Your task to perform on an android device: Go to Yahoo.com Image 0: 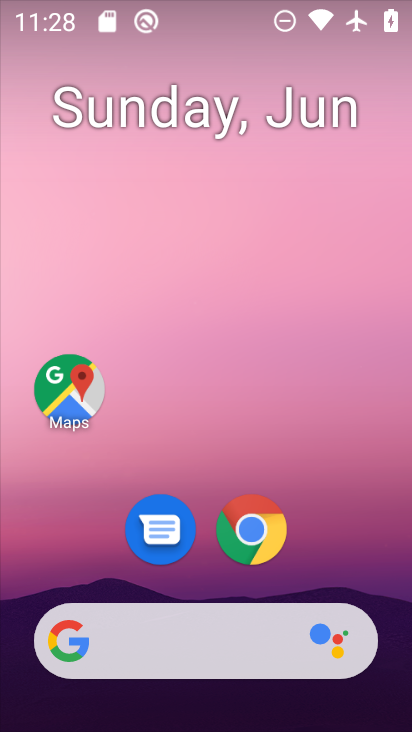
Step 0: click (252, 525)
Your task to perform on an android device: Go to Yahoo.com Image 1: 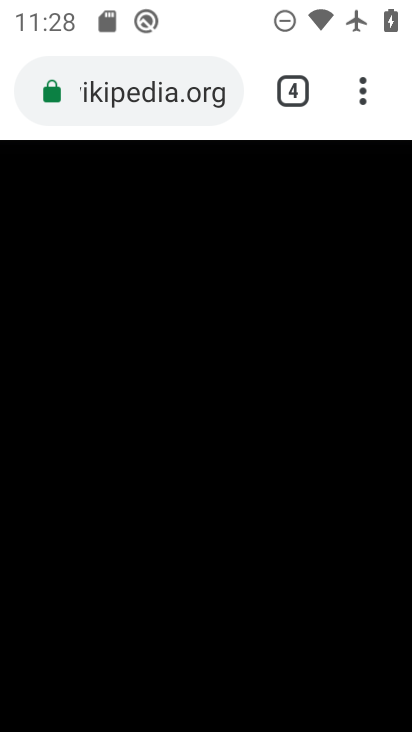
Step 1: click (215, 67)
Your task to perform on an android device: Go to Yahoo.com Image 2: 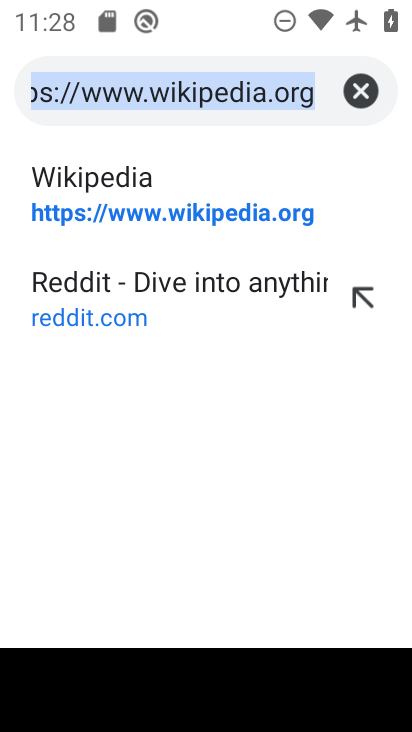
Step 2: click (359, 92)
Your task to perform on an android device: Go to Yahoo.com Image 3: 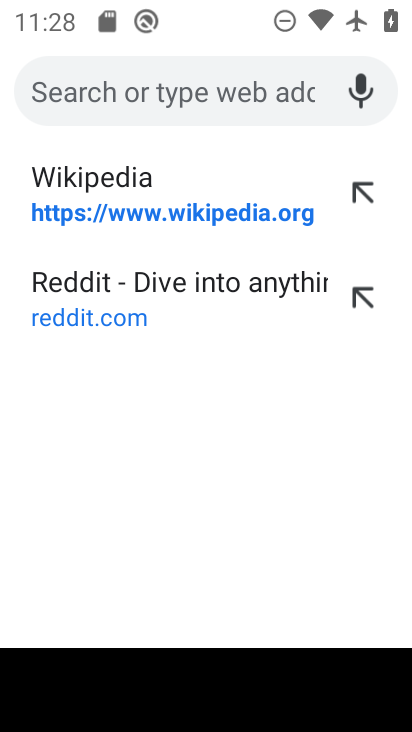
Step 3: type "yahoo.com"
Your task to perform on an android device: Go to Yahoo.com Image 4: 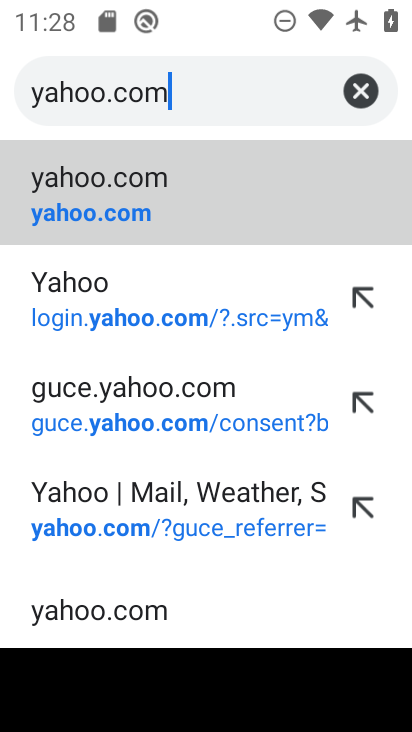
Step 4: click (98, 180)
Your task to perform on an android device: Go to Yahoo.com Image 5: 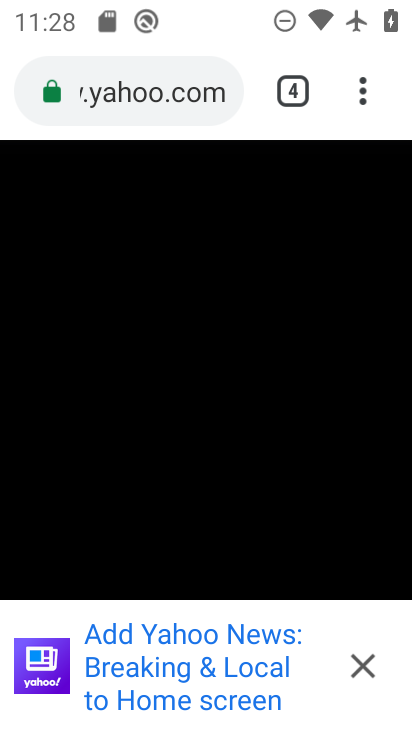
Step 5: click (361, 660)
Your task to perform on an android device: Go to Yahoo.com Image 6: 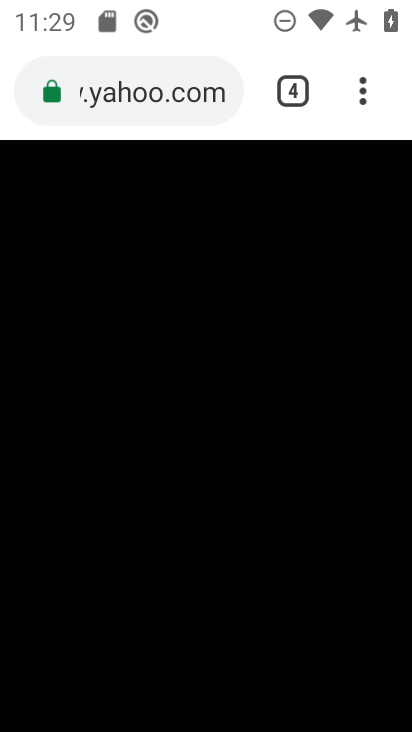
Step 6: task complete